Your task to perform on an android device: open app "Microsoft Authenticator" (install if not already installed) Image 0: 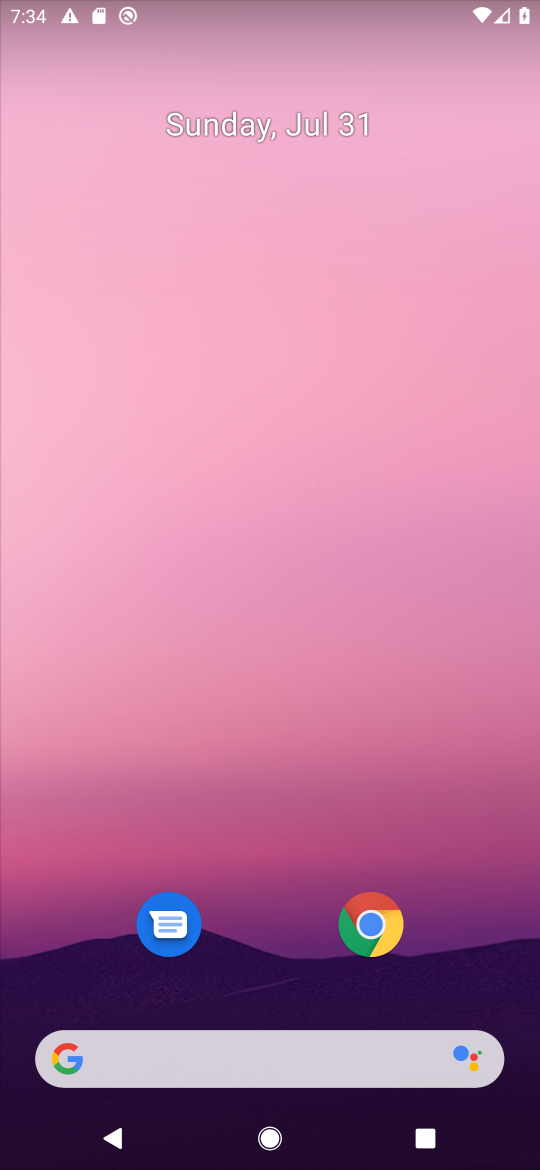
Step 0: press home button
Your task to perform on an android device: open app "Microsoft Authenticator" (install if not already installed) Image 1: 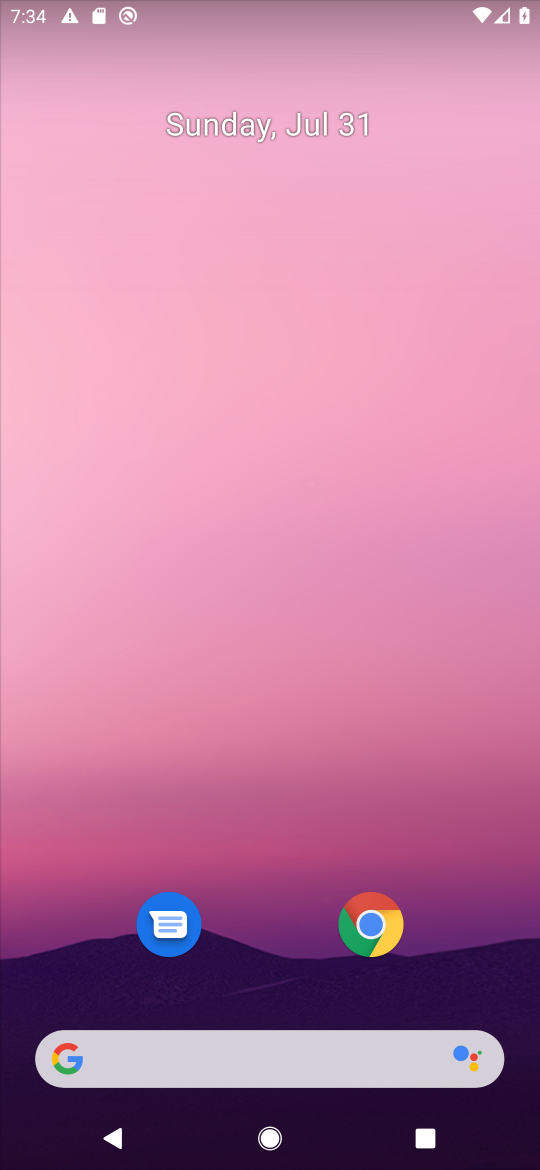
Step 1: drag from (214, 1032) to (214, 496)
Your task to perform on an android device: open app "Microsoft Authenticator" (install if not already installed) Image 2: 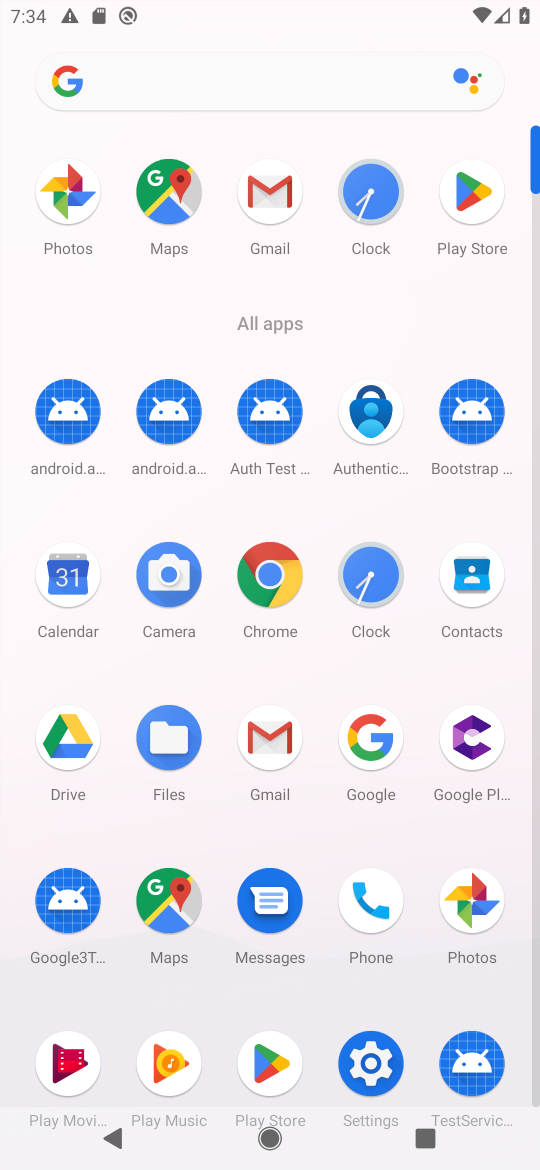
Step 2: drag from (233, 1010) to (233, 448)
Your task to perform on an android device: open app "Microsoft Authenticator" (install if not already installed) Image 3: 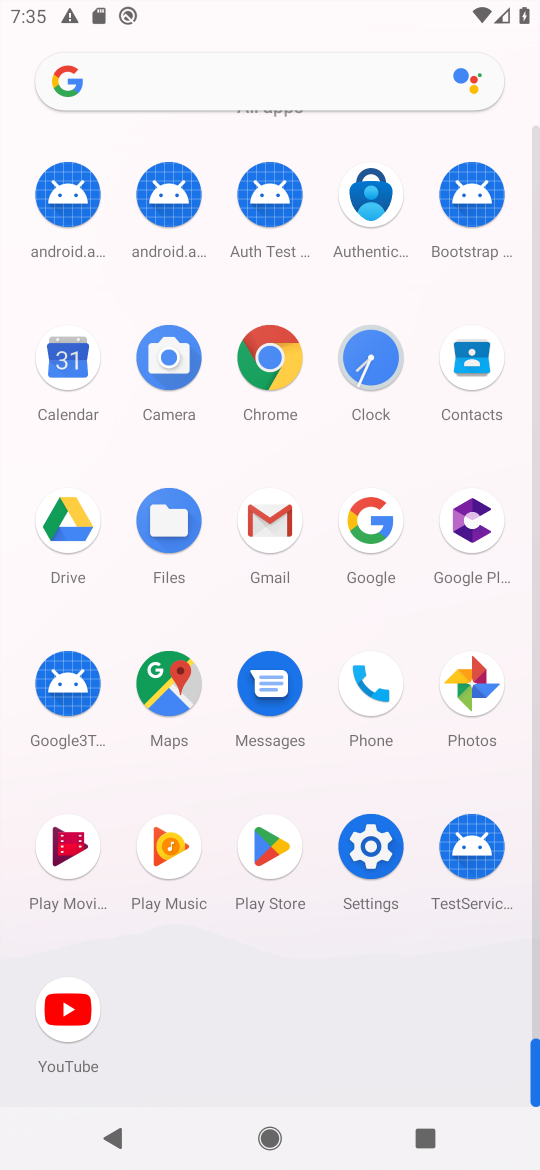
Step 3: click (376, 210)
Your task to perform on an android device: open app "Microsoft Authenticator" (install if not already installed) Image 4: 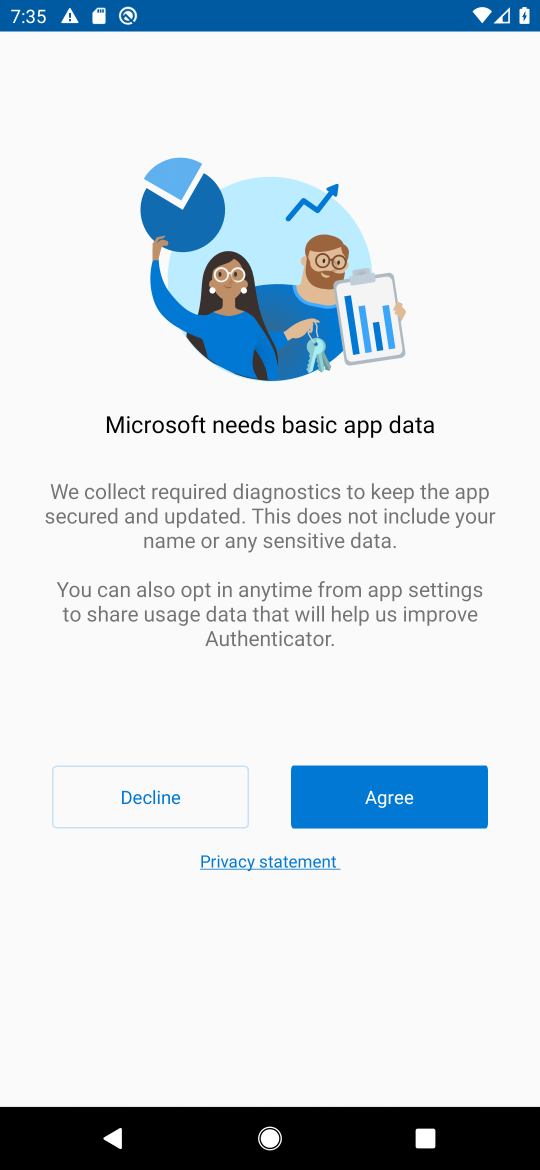
Step 4: task complete